Your task to perform on an android device: toggle priority inbox in the gmail app Image 0: 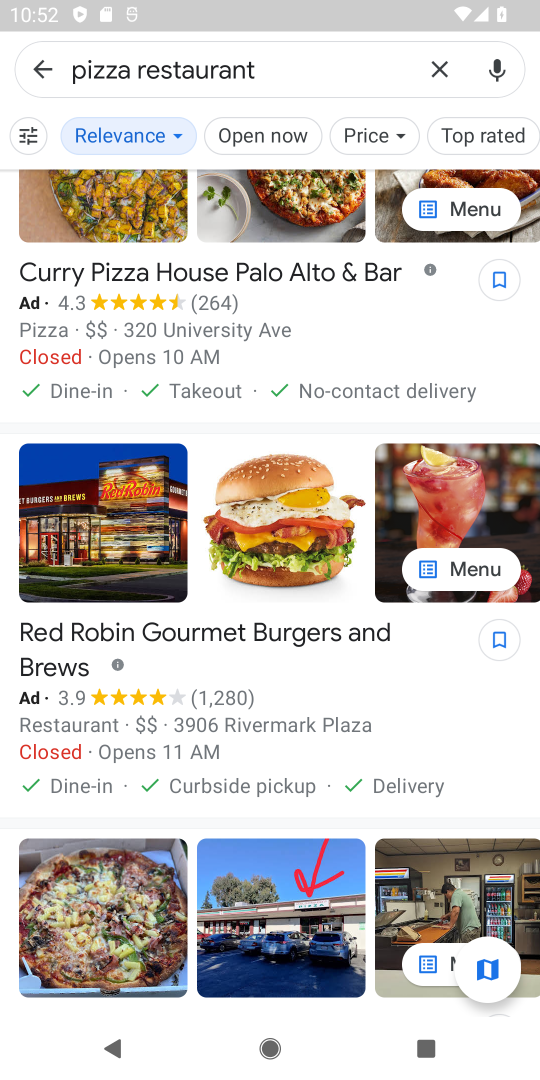
Step 0: press home button
Your task to perform on an android device: toggle priority inbox in the gmail app Image 1: 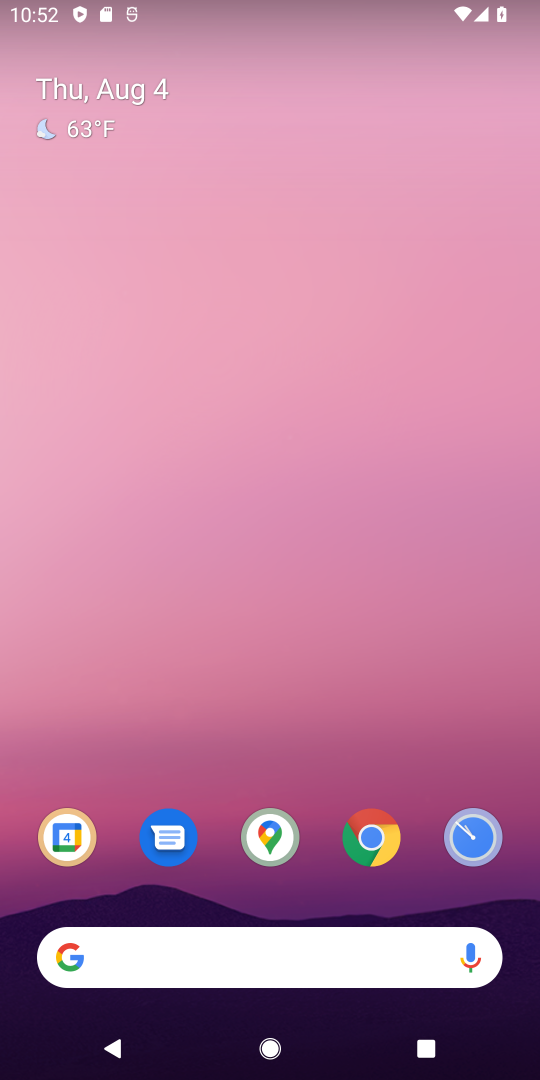
Step 1: drag from (335, 911) to (372, 113)
Your task to perform on an android device: toggle priority inbox in the gmail app Image 2: 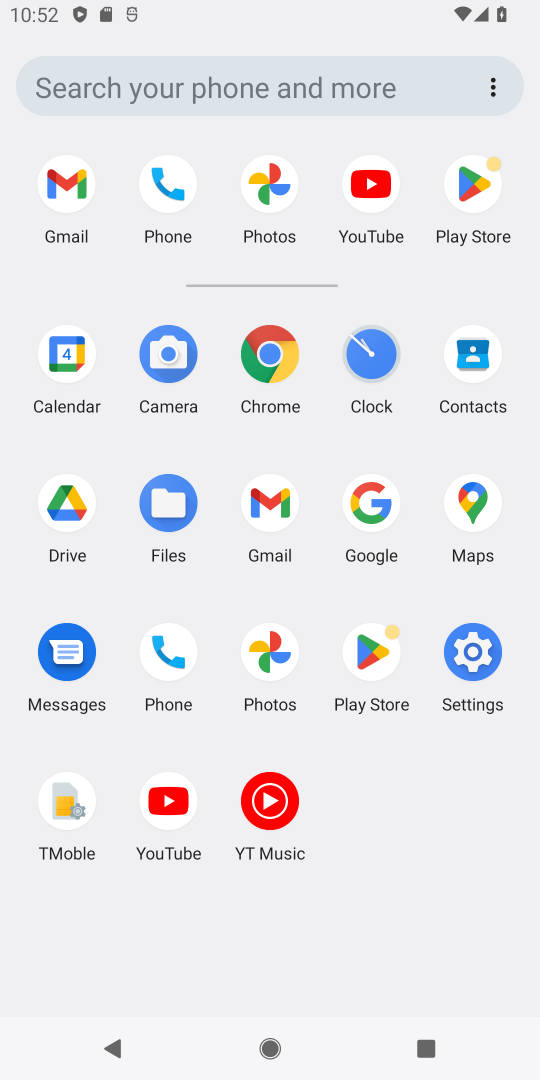
Step 2: click (269, 490)
Your task to perform on an android device: toggle priority inbox in the gmail app Image 3: 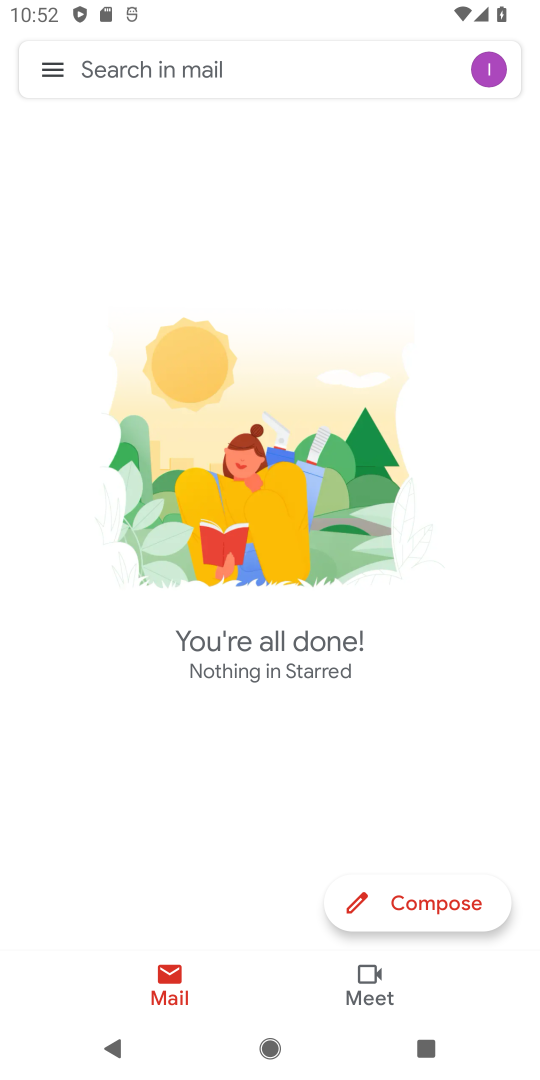
Step 3: click (50, 58)
Your task to perform on an android device: toggle priority inbox in the gmail app Image 4: 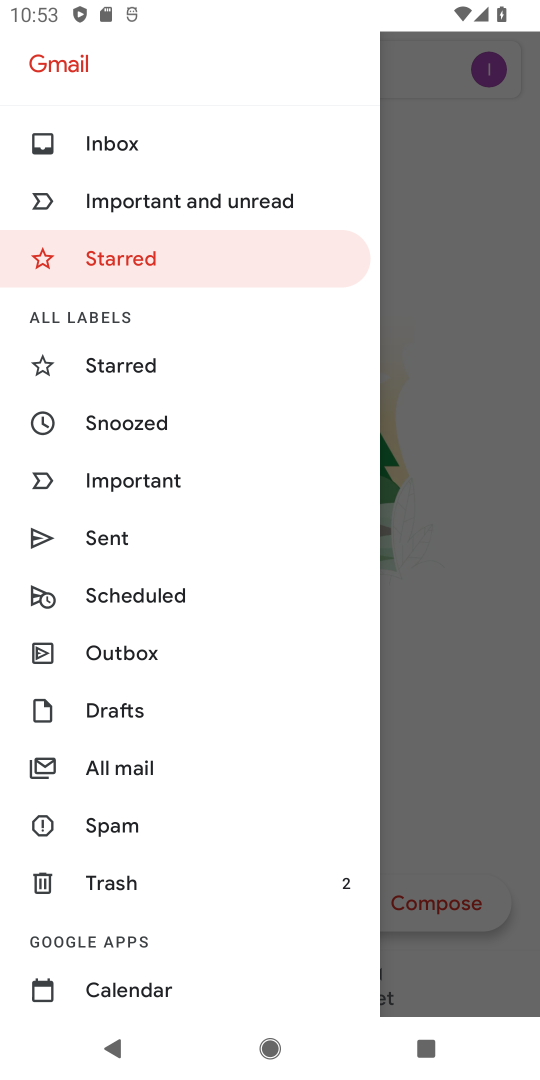
Step 4: drag from (210, 923) to (251, 301)
Your task to perform on an android device: toggle priority inbox in the gmail app Image 5: 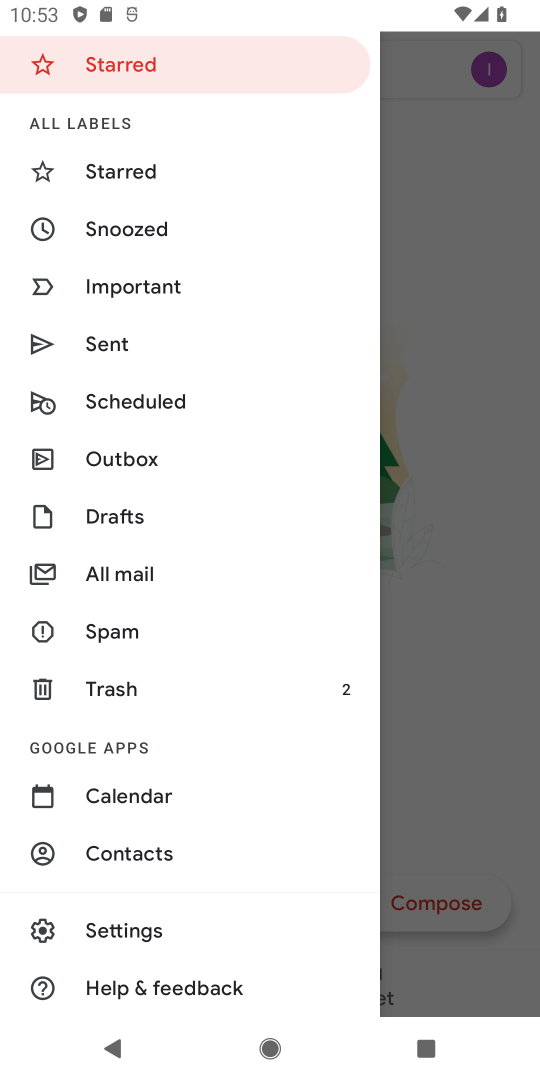
Step 5: click (183, 925)
Your task to perform on an android device: toggle priority inbox in the gmail app Image 6: 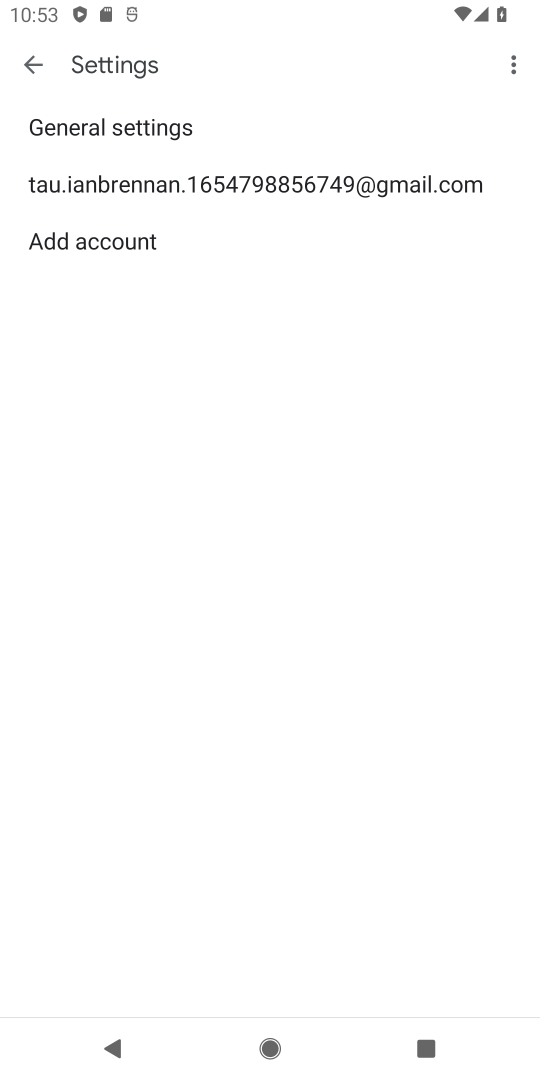
Step 6: click (155, 183)
Your task to perform on an android device: toggle priority inbox in the gmail app Image 7: 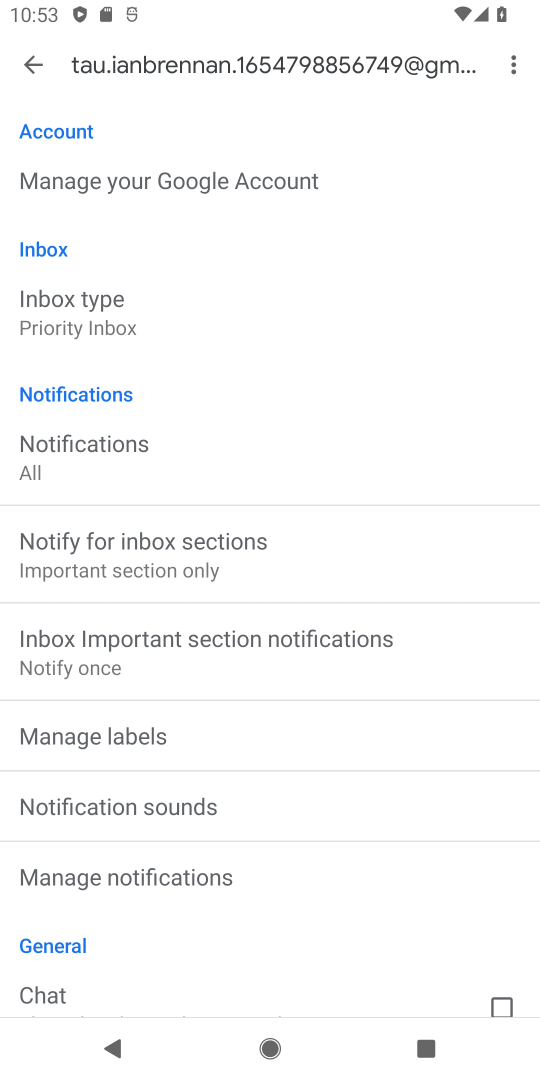
Step 7: click (155, 313)
Your task to perform on an android device: toggle priority inbox in the gmail app Image 8: 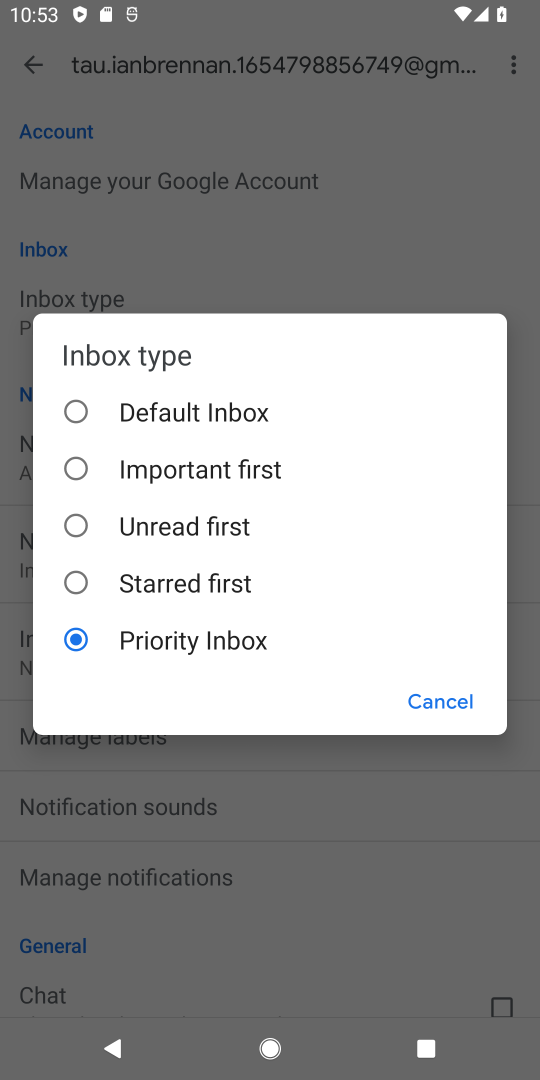
Step 8: click (119, 641)
Your task to perform on an android device: toggle priority inbox in the gmail app Image 9: 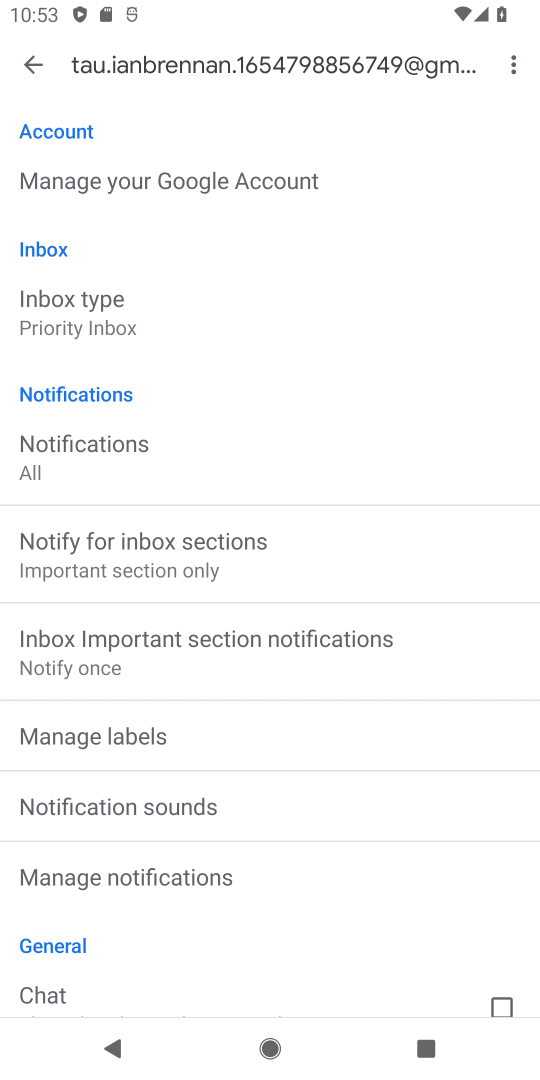
Step 9: task complete